Your task to perform on an android device: Show the shopping cart on bestbuy. Add "razer huntsman" to the cart on bestbuy Image 0: 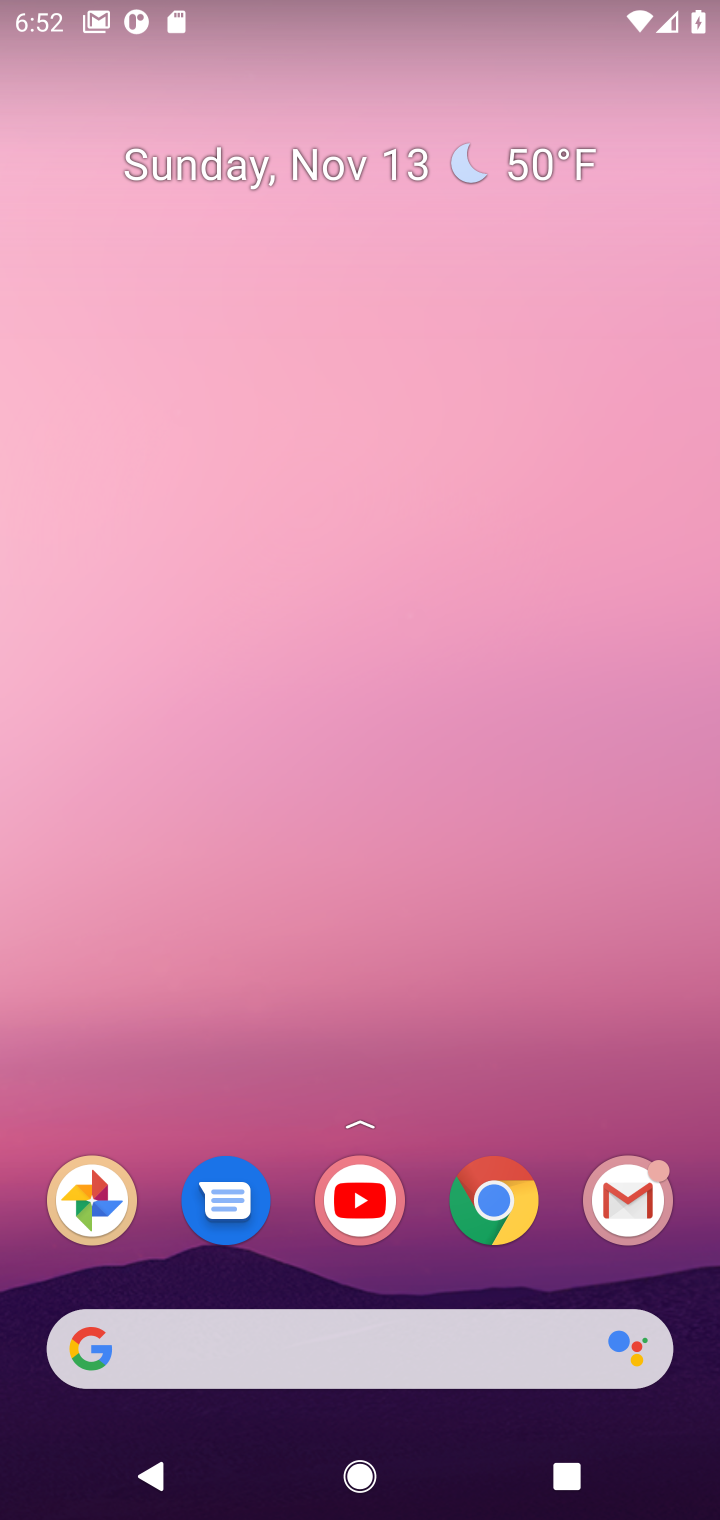
Step 0: click (477, 1210)
Your task to perform on an android device: Show the shopping cart on bestbuy. Add "razer huntsman" to the cart on bestbuy Image 1: 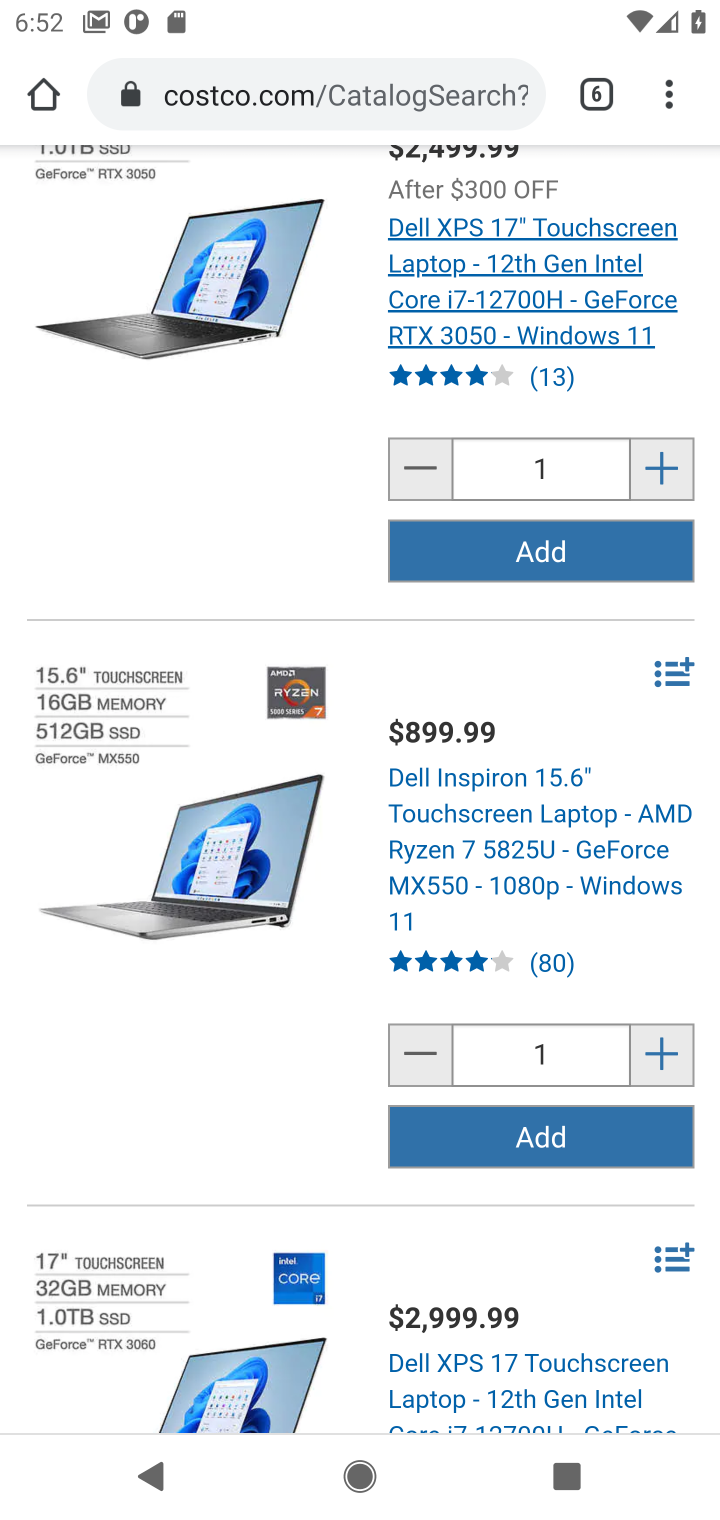
Step 1: click (602, 90)
Your task to perform on an android device: Show the shopping cart on bestbuy. Add "razer huntsman" to the cart on bestbuy Image 2: 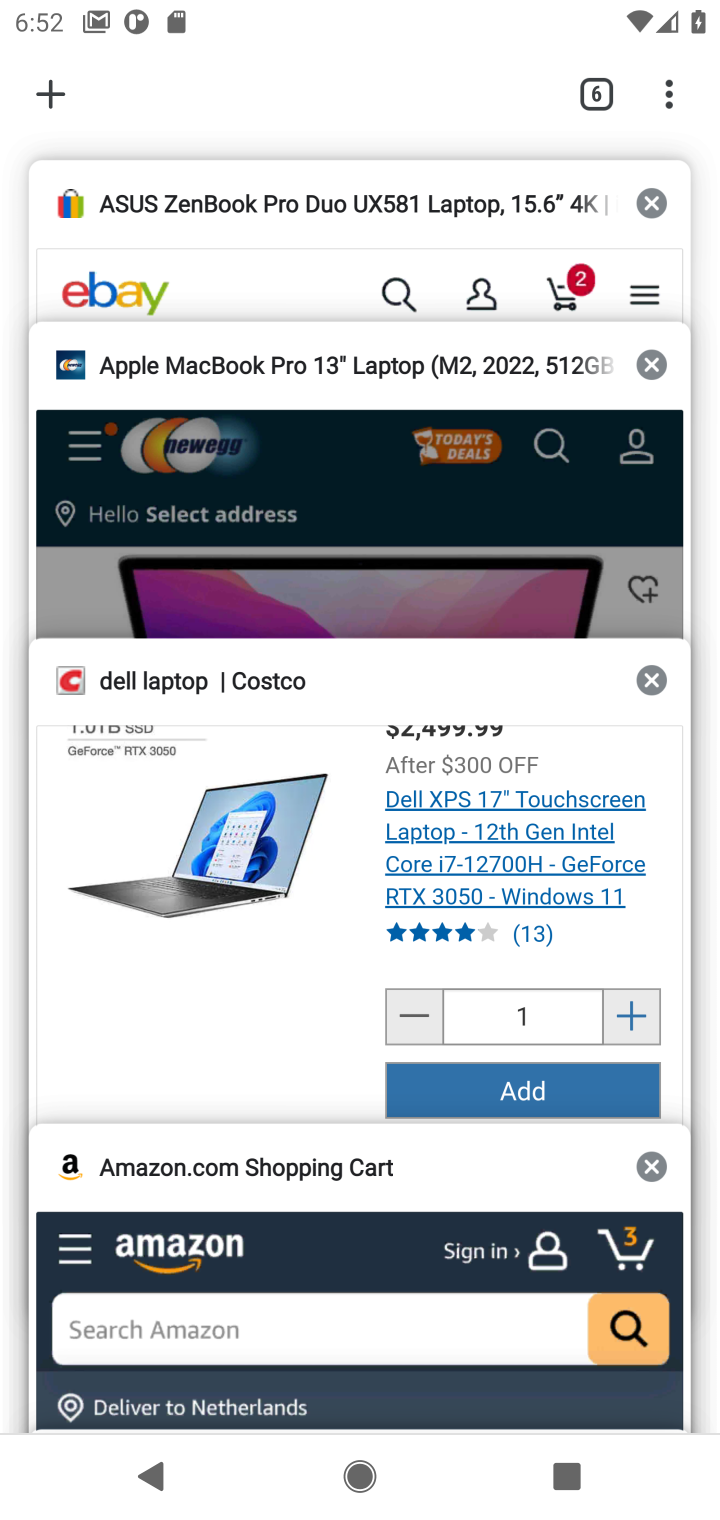
Step 2: drag from (249, 1242) to (448, 419)
Your task to perform on an android device: Show the shopping cart on bestbuy. Add "razer huntsman" to the cart on bestbuy Image 3: 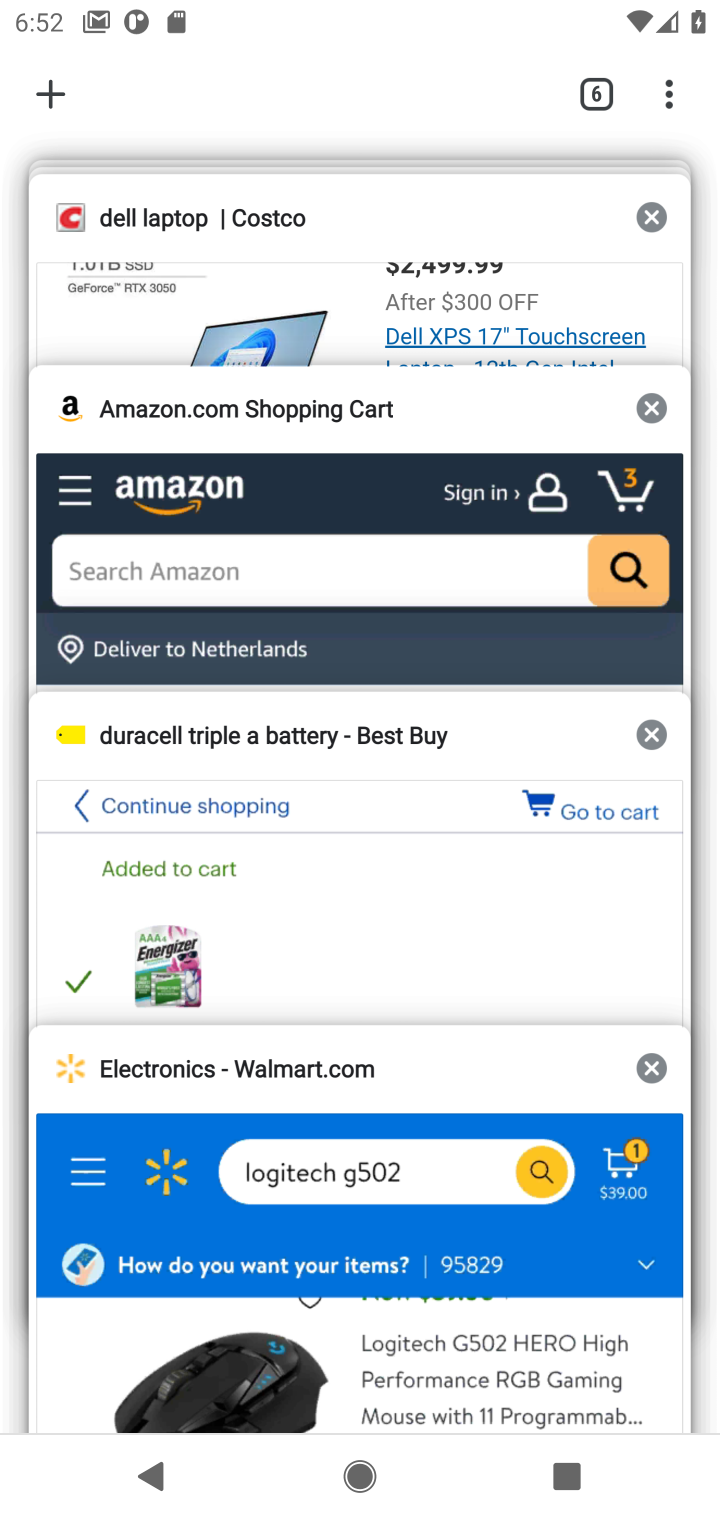
Step 3: click (276, 851)
Your task to perform on an android device: Show the shopping cart on bestbuy. Add "razer huntsman" to the cart on bestbuy Image 4: 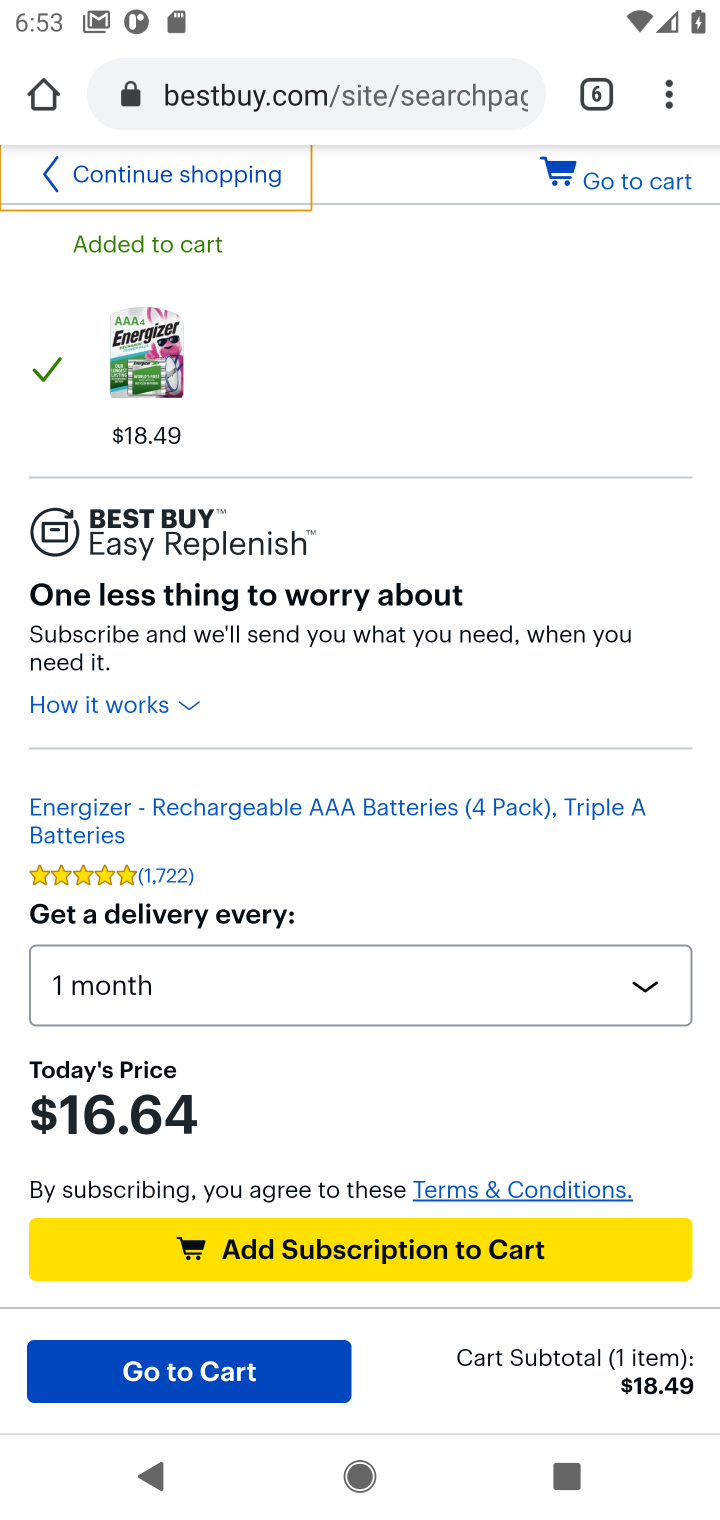
Step 4: click (238, 167)
Your task to perform on an android device: Show the shopping cart on bestbuy. Add "razer huntsman" to the cart on bestbuy Image 5: 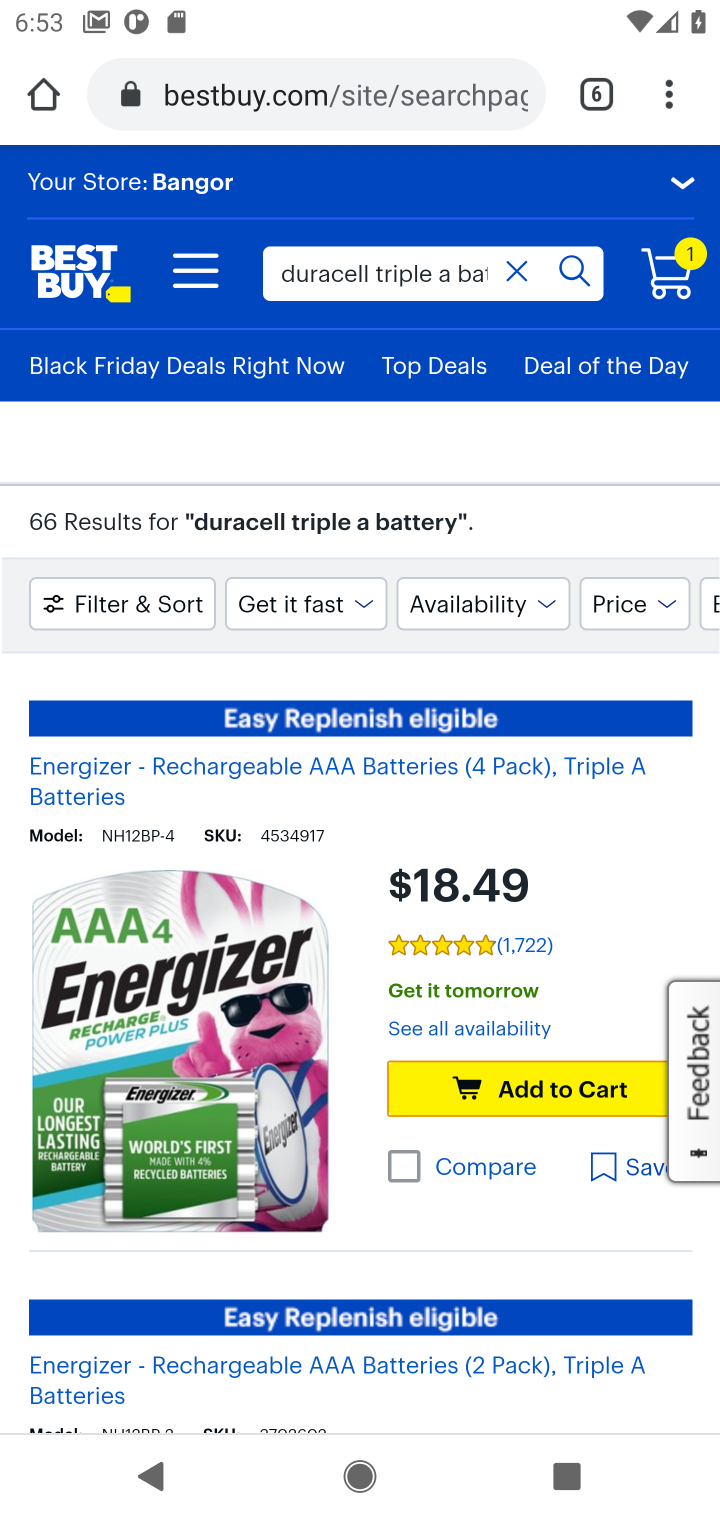
Step 5: click (518, 272)
Your task to perform on an android device: Show the shopping cart on bestbuy. Add "razer huntsman" to the cart on bestbuy Image 6: 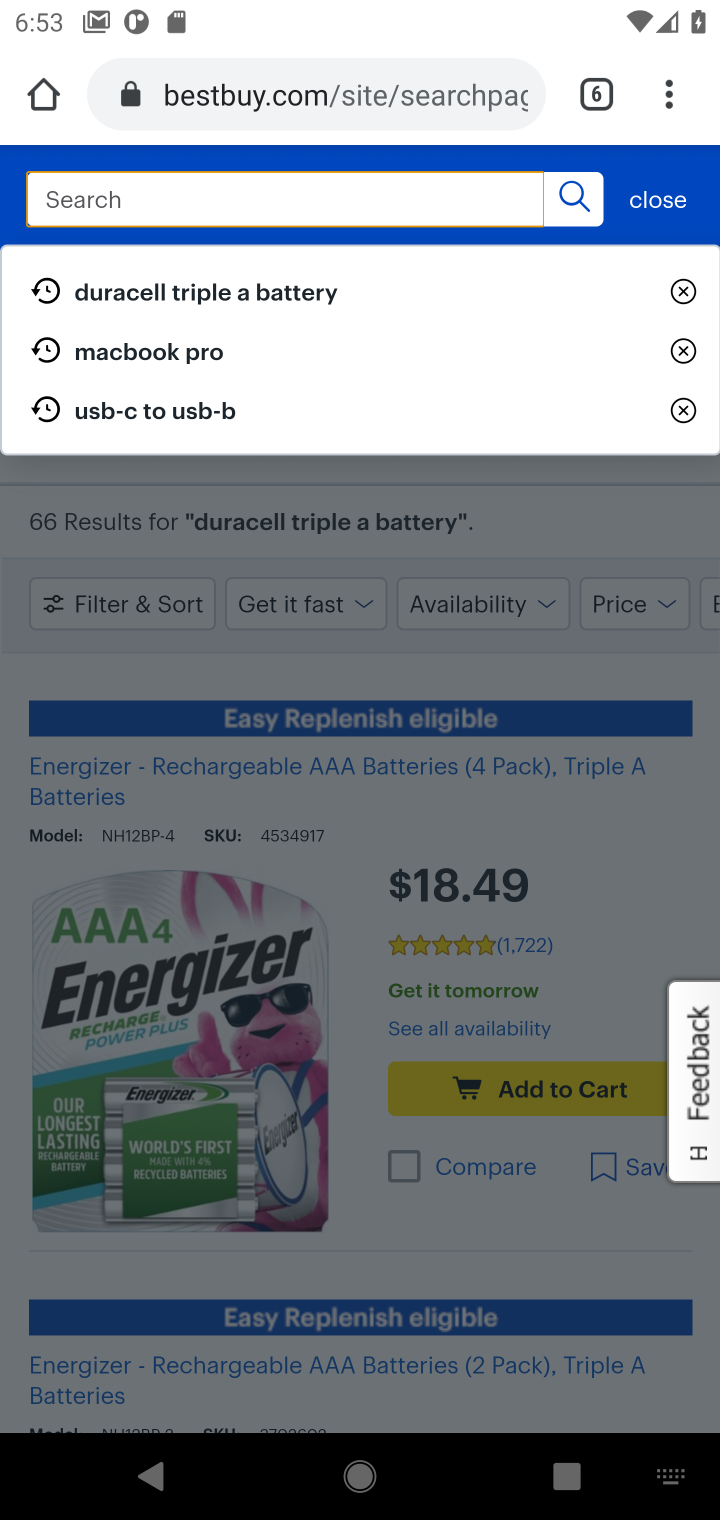
Step 6: type "razer huntsman"
Your task to perform on an android device: Show the shopping cart on bestbuy. Add "razer huntsman" to the cart on bestbuy Image 7: 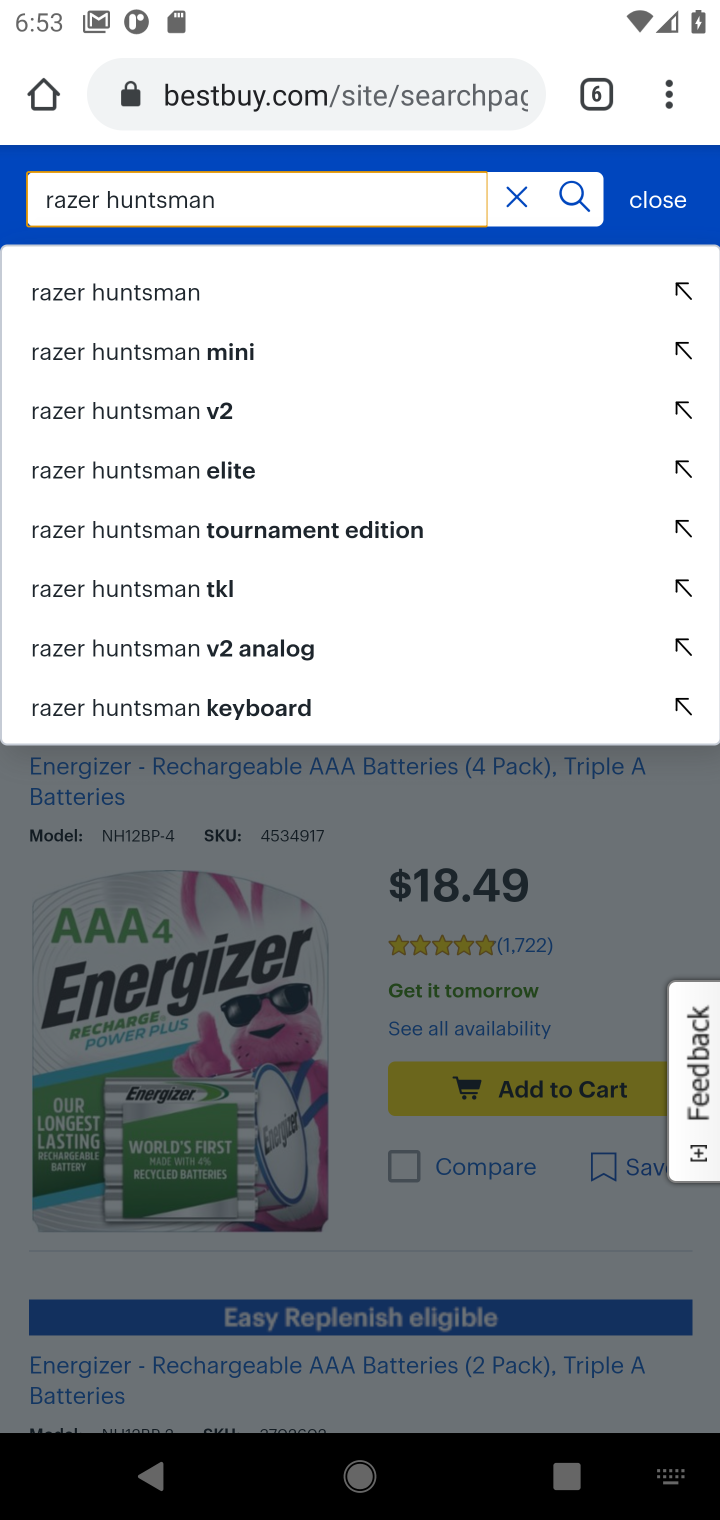
Step 7: click (570, 205)
Your task to perform on an android device: Show the shopping cart on bestbuy. Add "razer huntsman" to the cart on bestbuy Image 8: 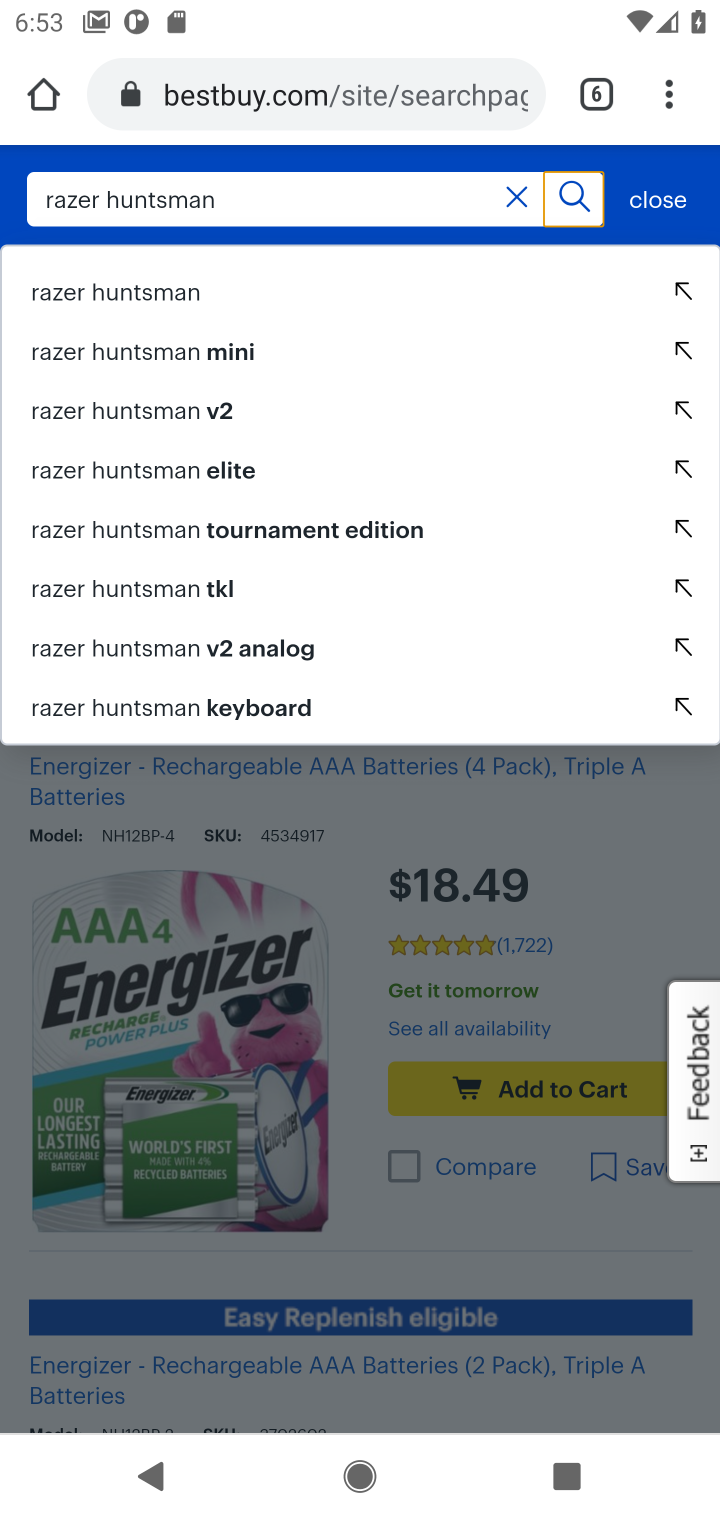
Step 8: click (176, 288)
Your task to perform on an android device: Show the shopping cart on bestbuy. Add "razer huntsman" to the cart on bestbuy Image 9: 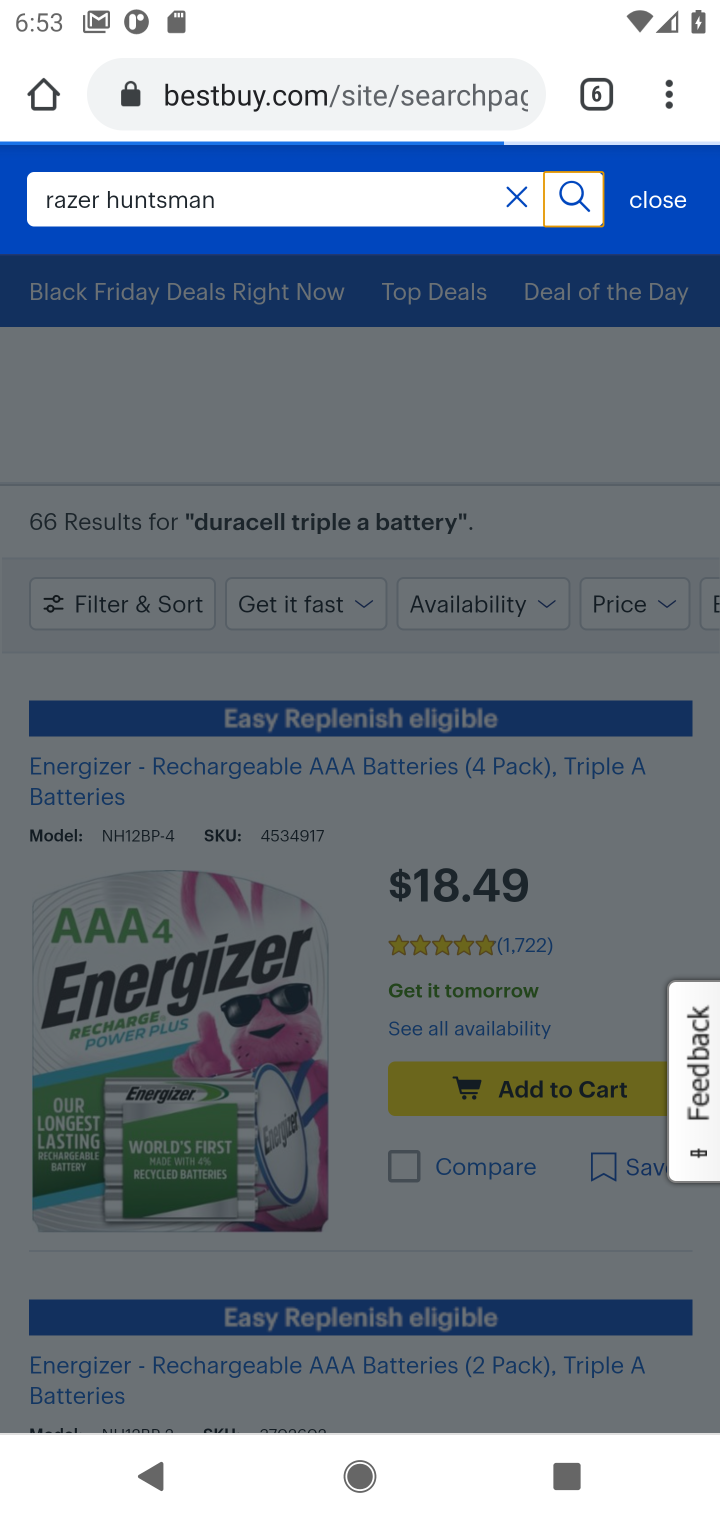
Step 9: click (579, 201)
Your task to perform on an android device: Show the shopping cart on bestbuy. Add "razer huntsman" to the cart on bestbuy Image 10: 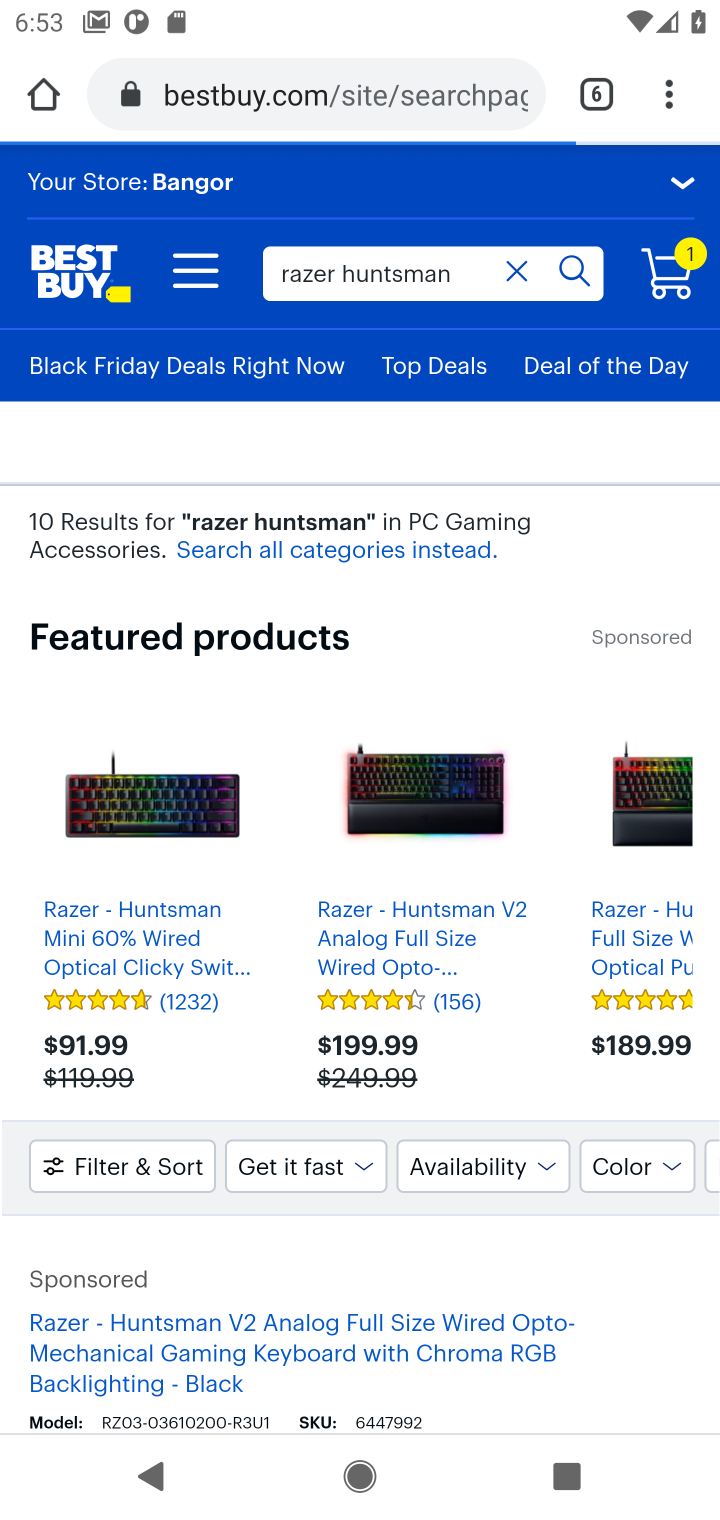
Step 10: drag from (486, 1269) to (640, 676)
Your task to perform on an android device: Show the shopping cart on bestbuy. Add "razer huntsman" to the cart on bestbuy Image 11: 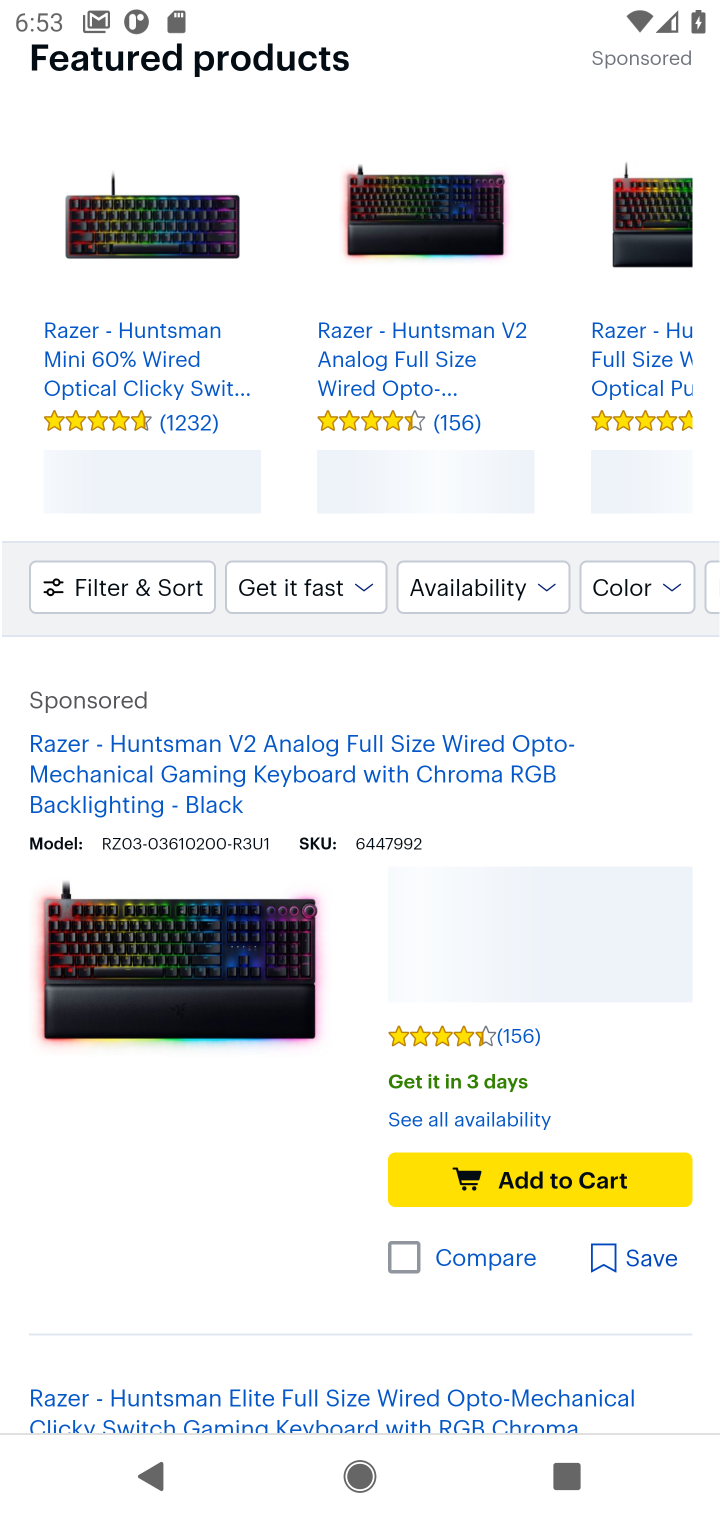
Step 11: click (548, 1178)
Your task to perform on an android device: Show the shopping cart on bestbuy. Add "razer huntsman" to the cart on bestbuy Image 12: 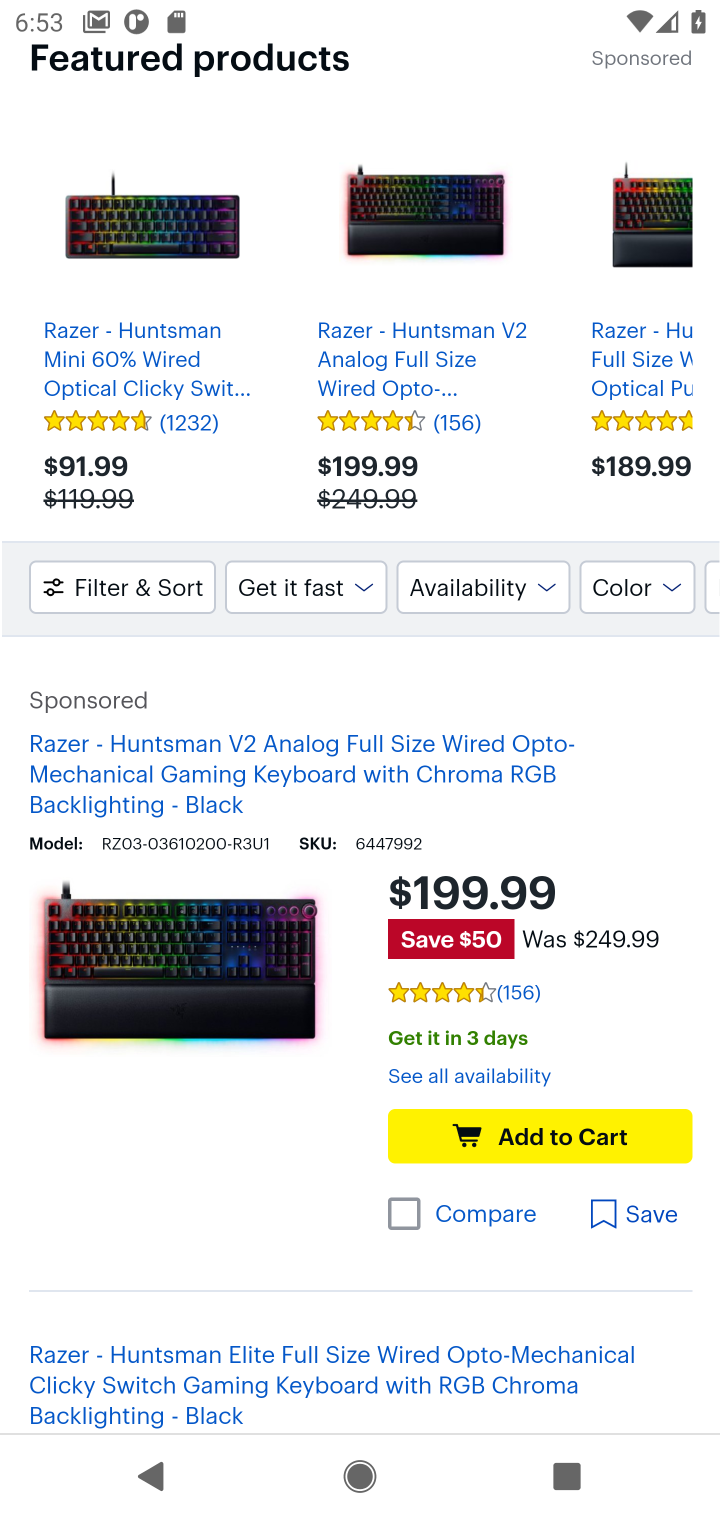
Step 12: task complete